Your task to perform on an android device: turn off picture-in-picture Image 0: 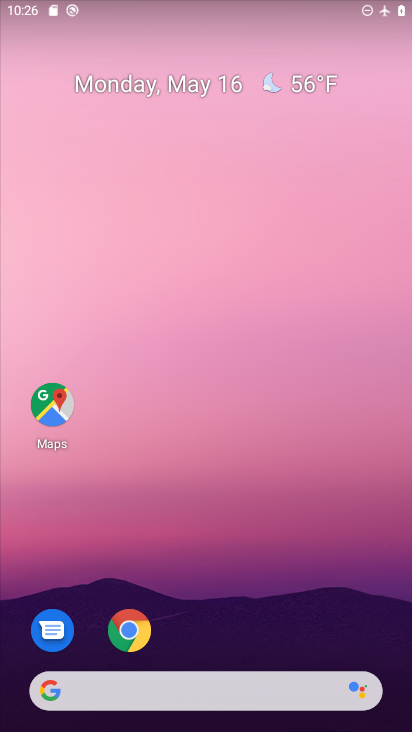
Step 0: click (132, 623)
Your task to perform on an android device: turn off picture-in-picture Image 1: 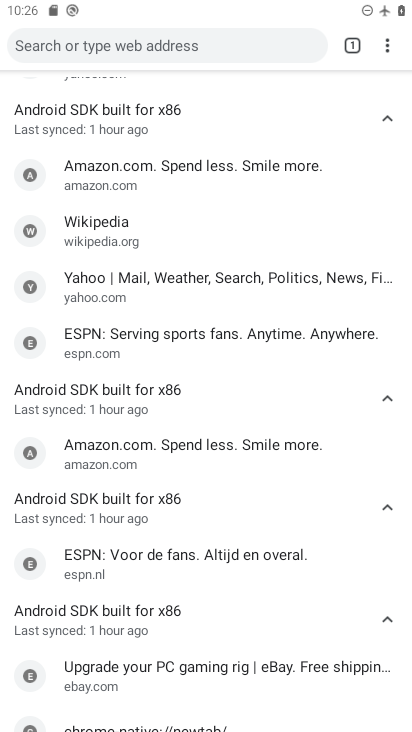
Step 1: press back button
Your task to perform on an android device: turn off picture-in-picture Image 2: 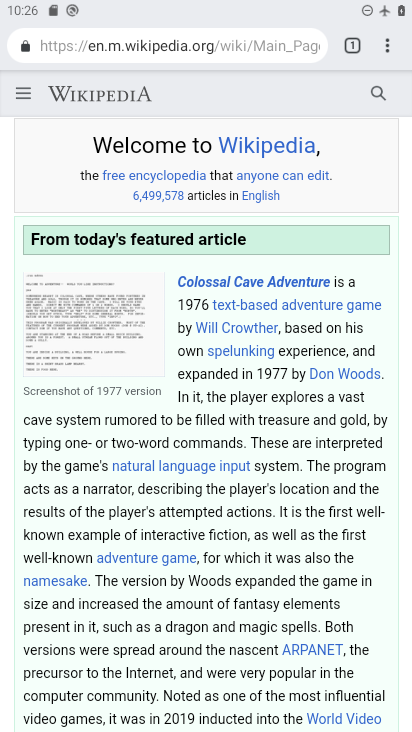
Step 2: press home button
Your task to perform on an android device: turn off picture-in-picture Image 3: 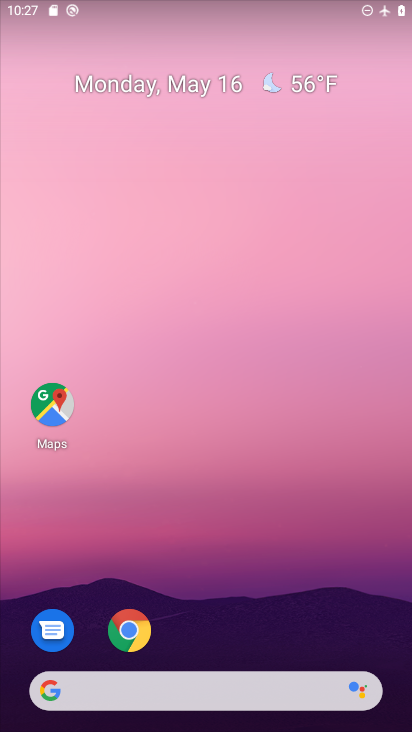
Step 3: click (129, 626)
Your task to perform on an android device: turn off picture-in-picture Image 4: 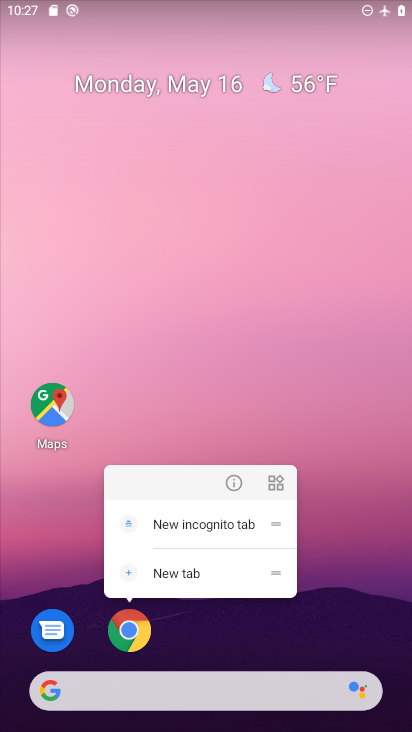
Step 4: click (230, 482)
Your task to perform on an android device: turn off picture-in-picture Image 5: 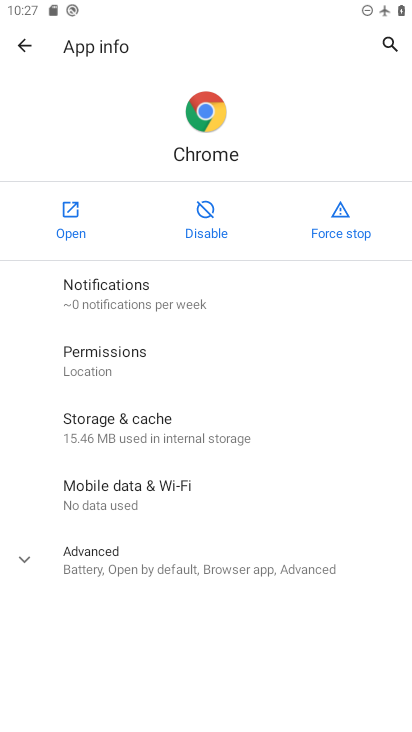
Step 5: click (25, 559)
Your task to perform on an android device: turn off picture-in-picture Image 6: 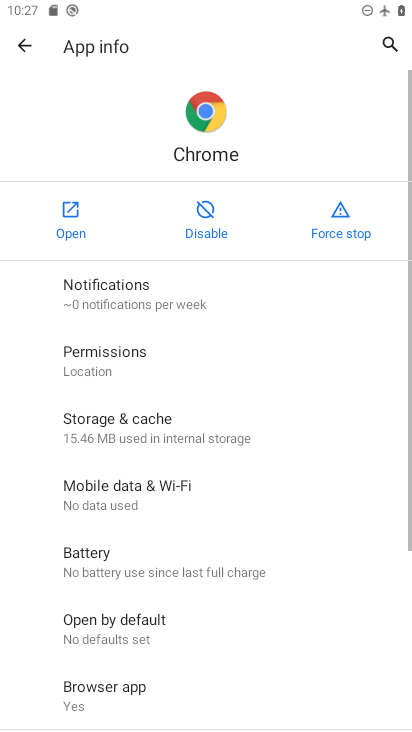
Step 6: drag from (248, 629) to (267, 341)
Your task to perform on an android device: turn off picture-in-picture Image 7: 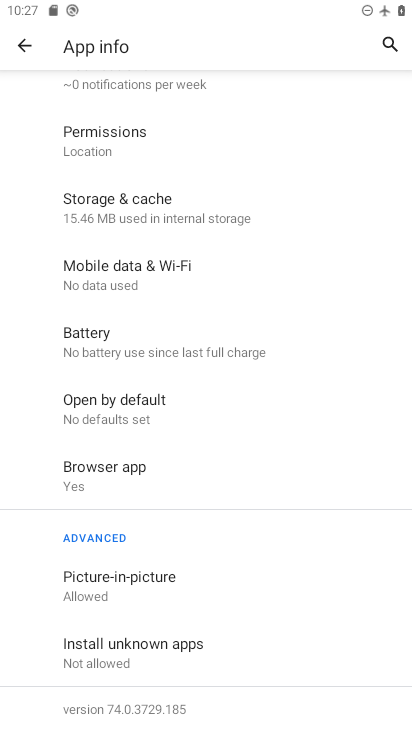
Step 7: click (137, 586)
Your task to perform on an android device: turn off picture-in-picture Image 8: 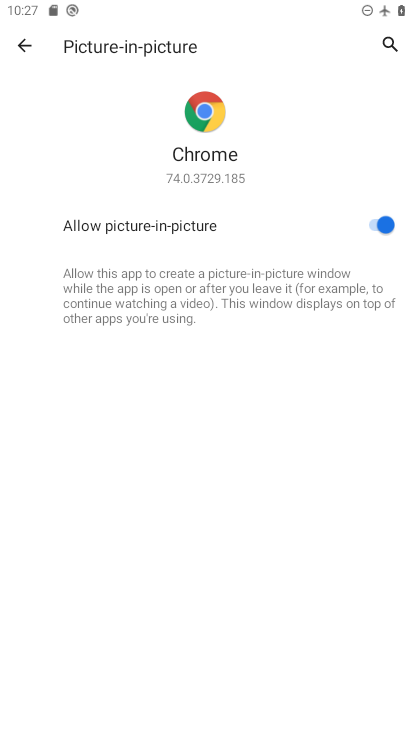
Step 8: click (378, 221)
Your task to perform on an android device: turn off picture-in-picture Image 9: 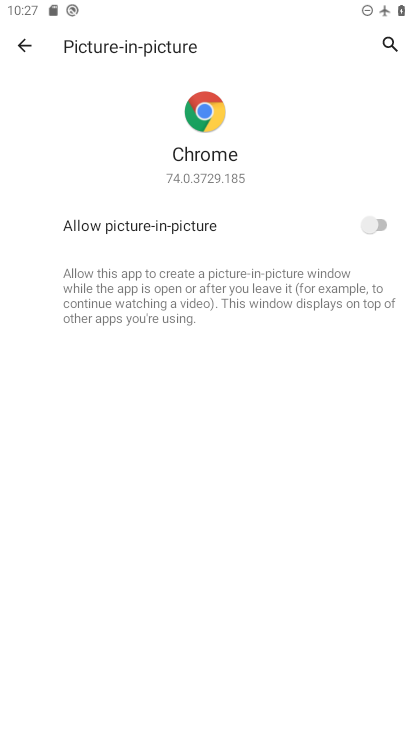
Step 9: task complete